Your task to perform on an android device: Empty the shopping cart on costco.com. Search for "usb-b" on costco.com, select the first entry, and add it to the cart. Image 0: 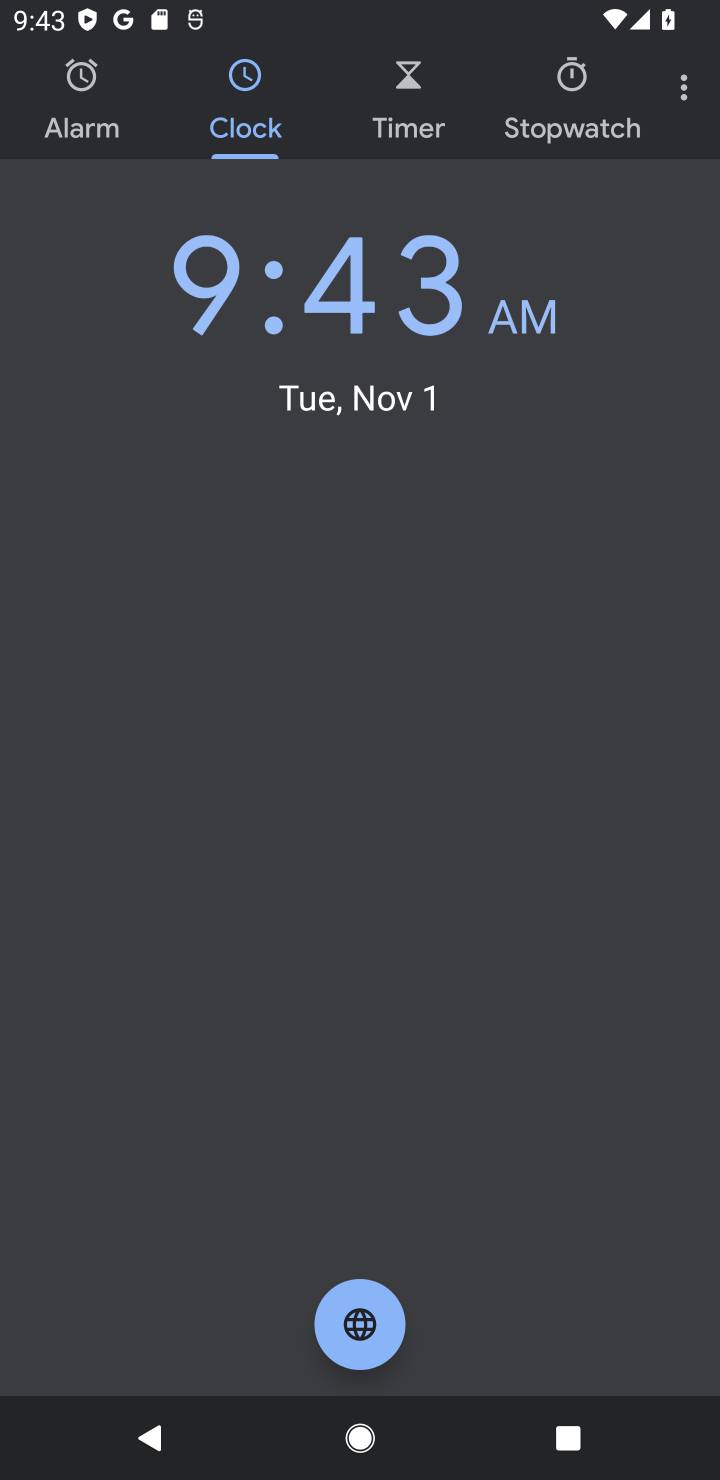
Step 0: press home button
Your task to perform on an android device: Empty the shopping cart on costco.com. Search for "usb-b" on costco.com, select the first entry, and add it to the cart. Image 1: 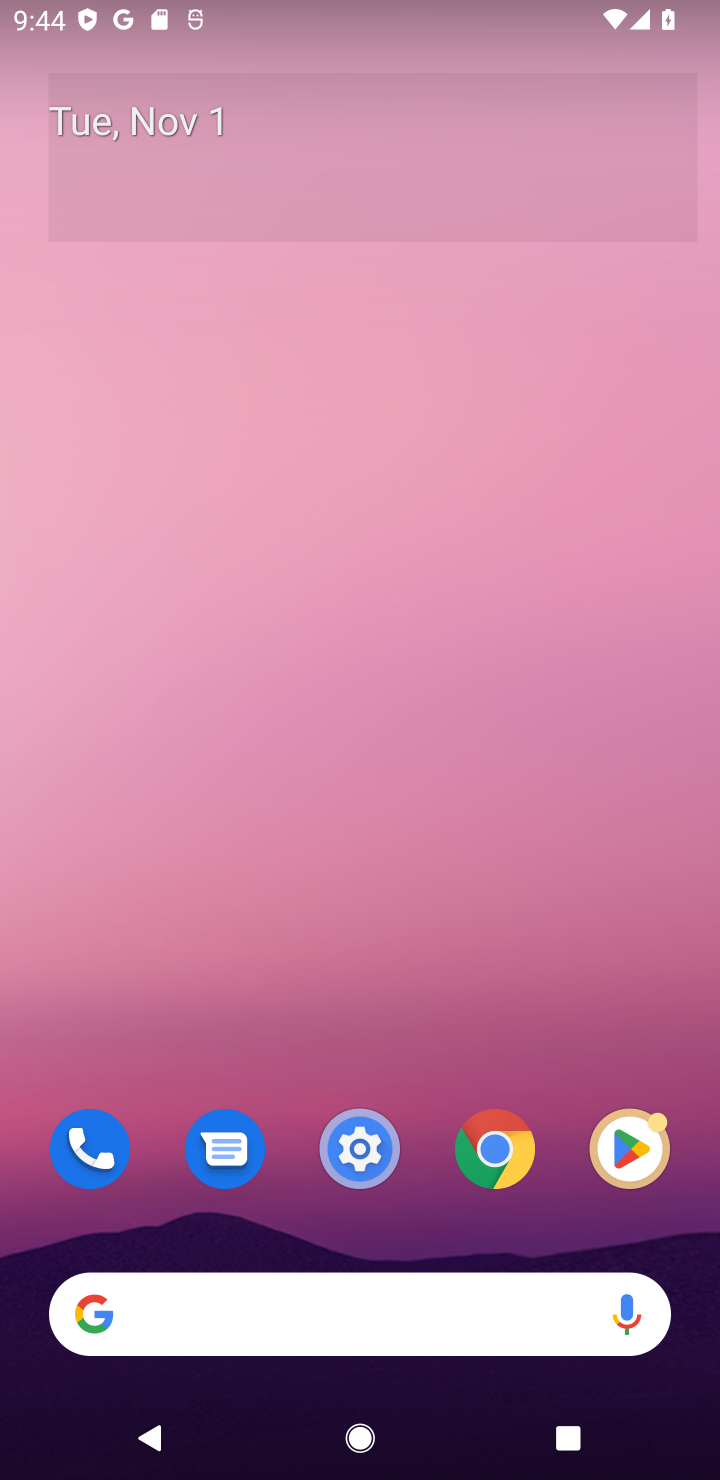
Step 1: click (162, 1310)
Your task to perform on an android device: Empty the shopping cart on costco.com. Search for "usb-b" on costco.com, select the first entry, and add it to the cart. Image 2: 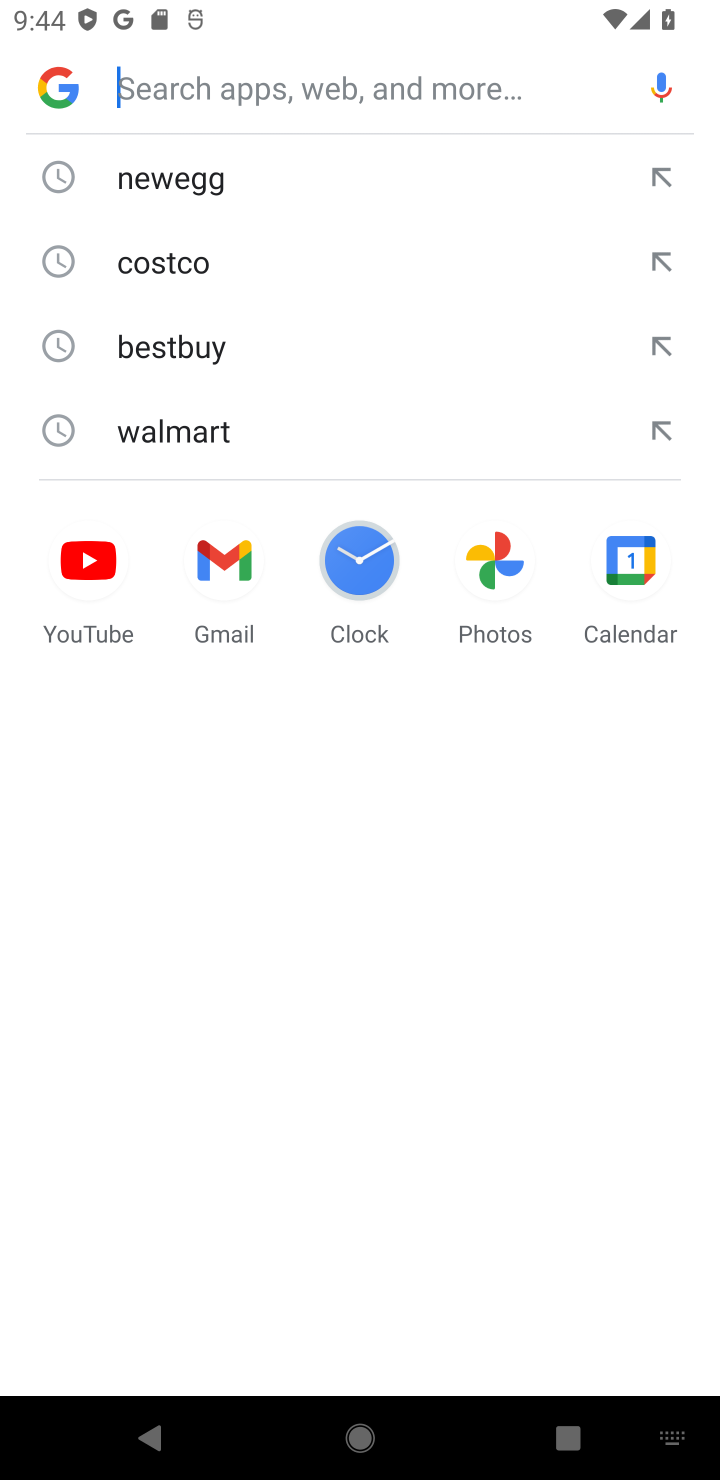
Step 2: press enter
Your task to perform on an android device: Empty the shopping cart on costco.com. Search for "usb-b" on costco.com, select the first entry, and add it to the cart. Image 3: 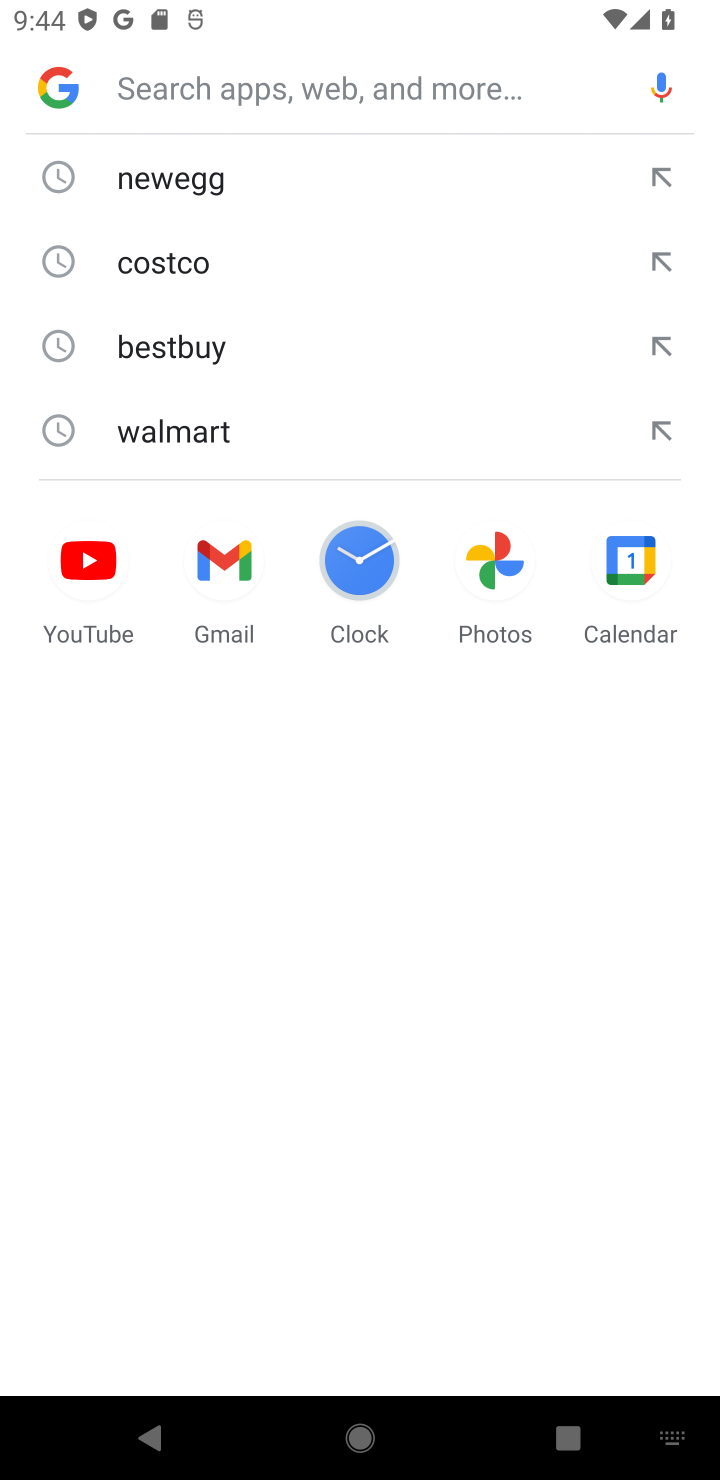
Step 3: type "costco.com"
Your task to perform on an android device: Empty the shopping cart on costco.com. Search for "usb-b" on costco.com, select the first entry, and add it to the cart. Image 4: 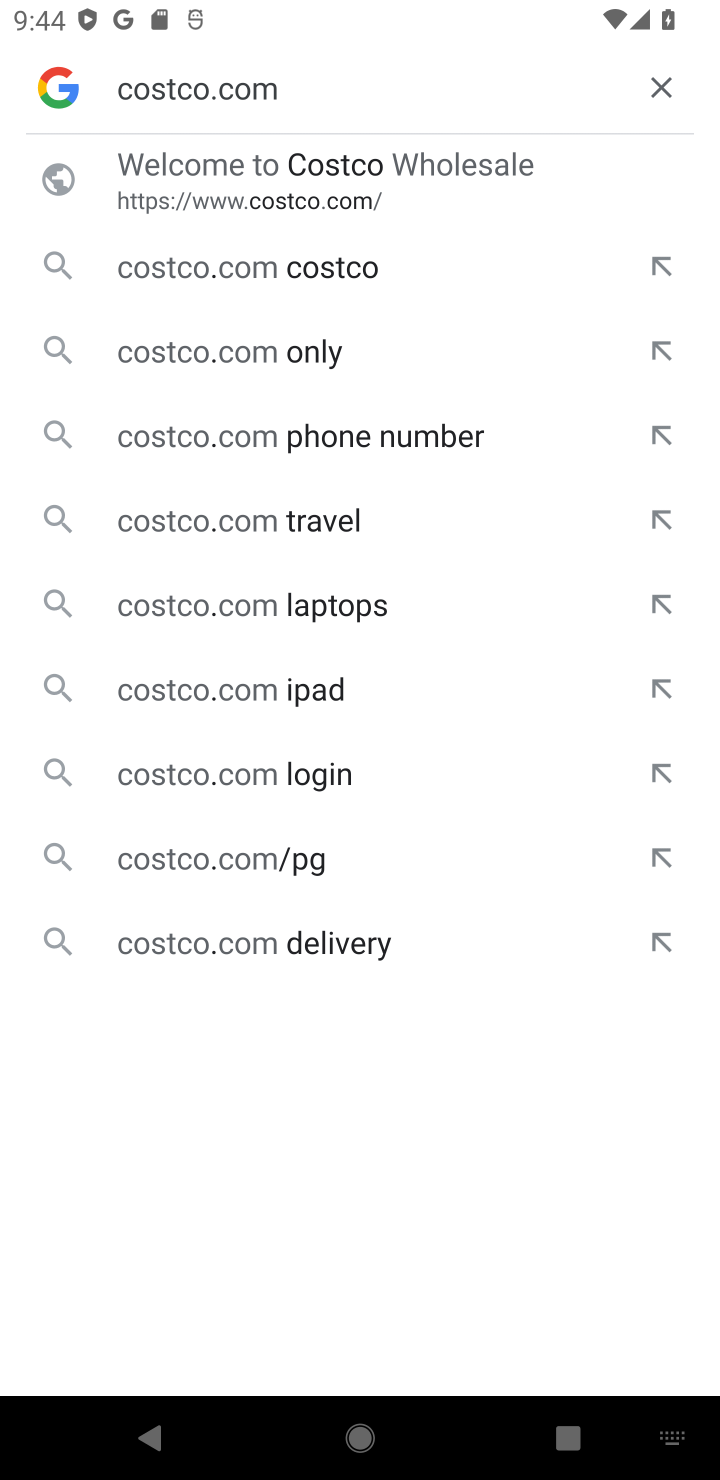
Step 4: press enter
Your task to perform on an android device: Empty the shopping cart on costco.com. Search for "usb-b" on costco.com, select the first entry, and add it to the cart. Image 5: 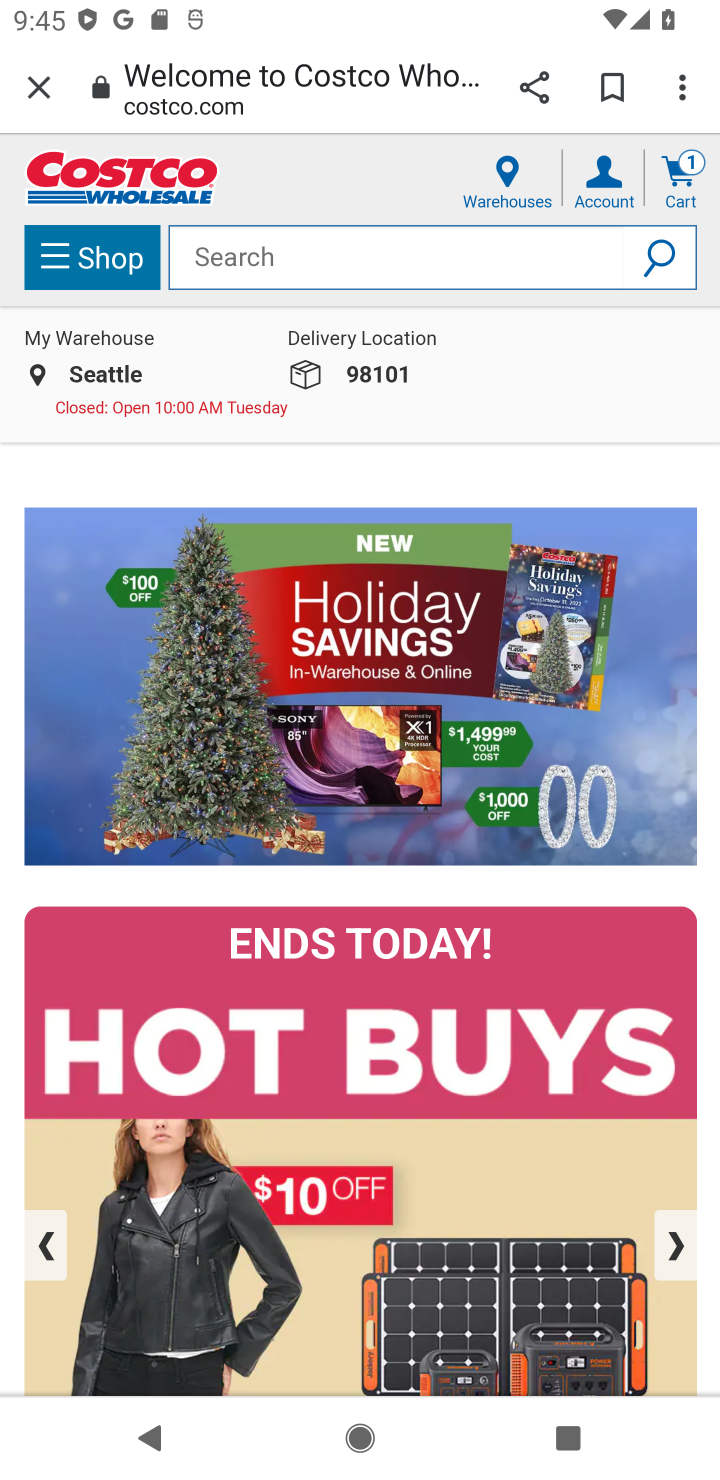
Step 5: click (692, 171)
Your task to perform on an android device: Empty the shopping cart on costco.com. Search for "usb-b" on costco.com, select the first entry, and add it to the cart. Image 6: 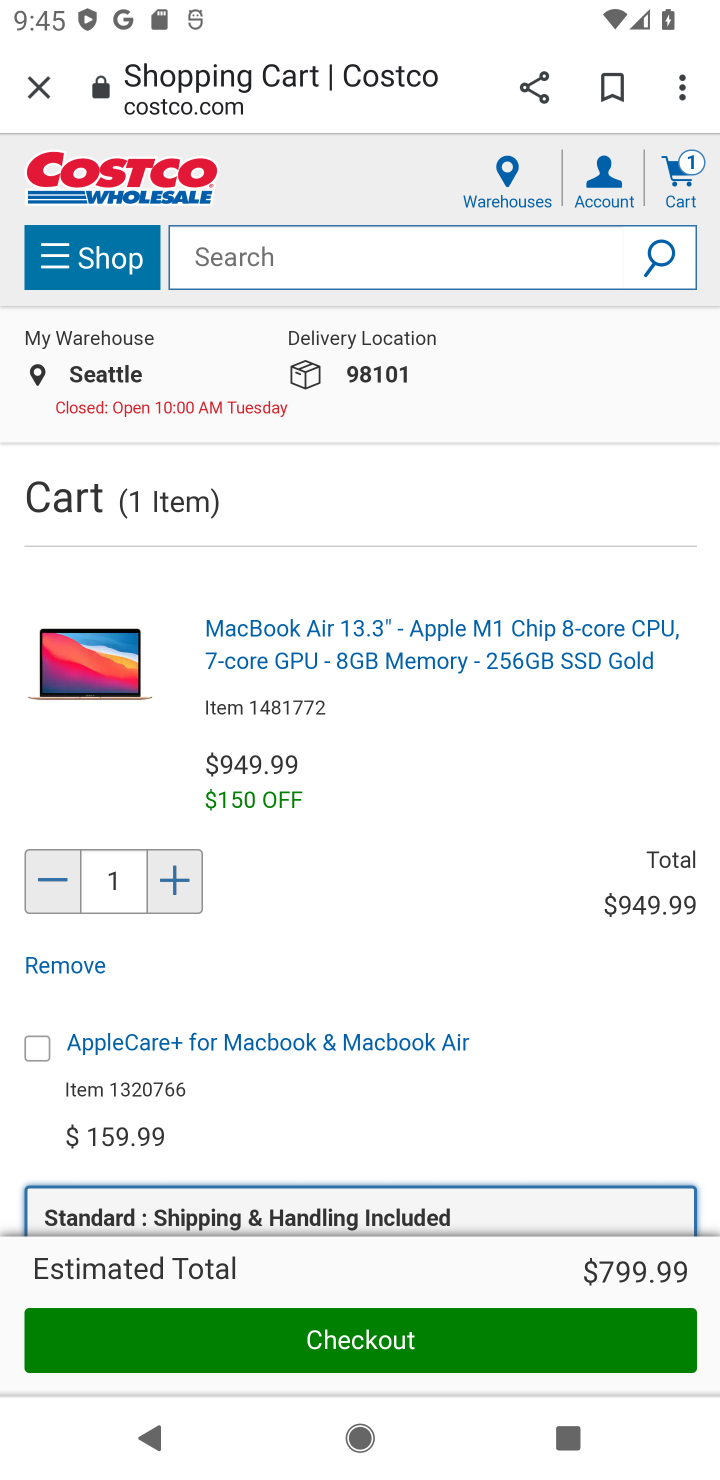
Step 6: click (41, 963)
Your task to perform on an android device: Empty the shopping cart on costco.com. Search for "usb-b" on costco.com, select the first entry, and add it to the cart. Image 7: 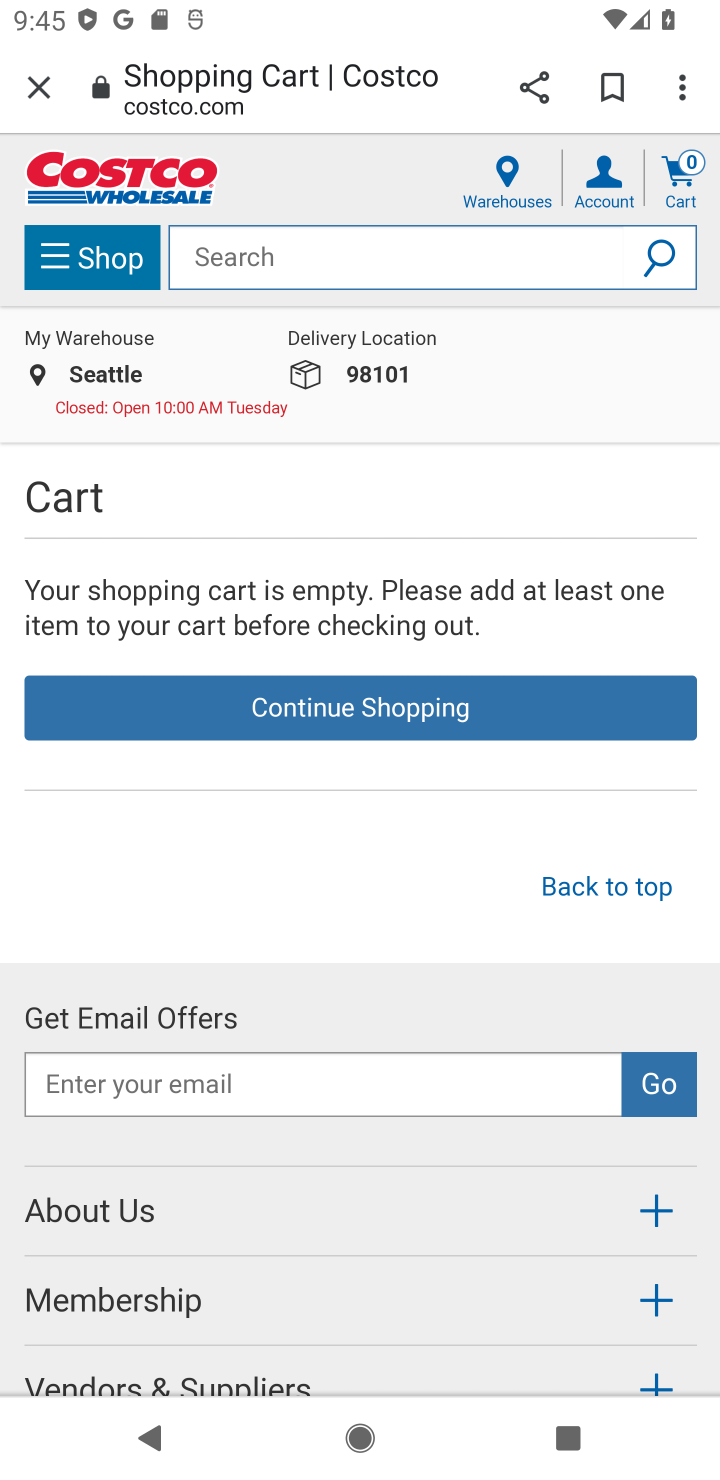
Step 7: click (242, 253)
Your task to perform on an android device: Empty the shopping cart on costco.com. Search for "usb-b" on costco.com, select the first entry, and add it to the cart. Image 8: 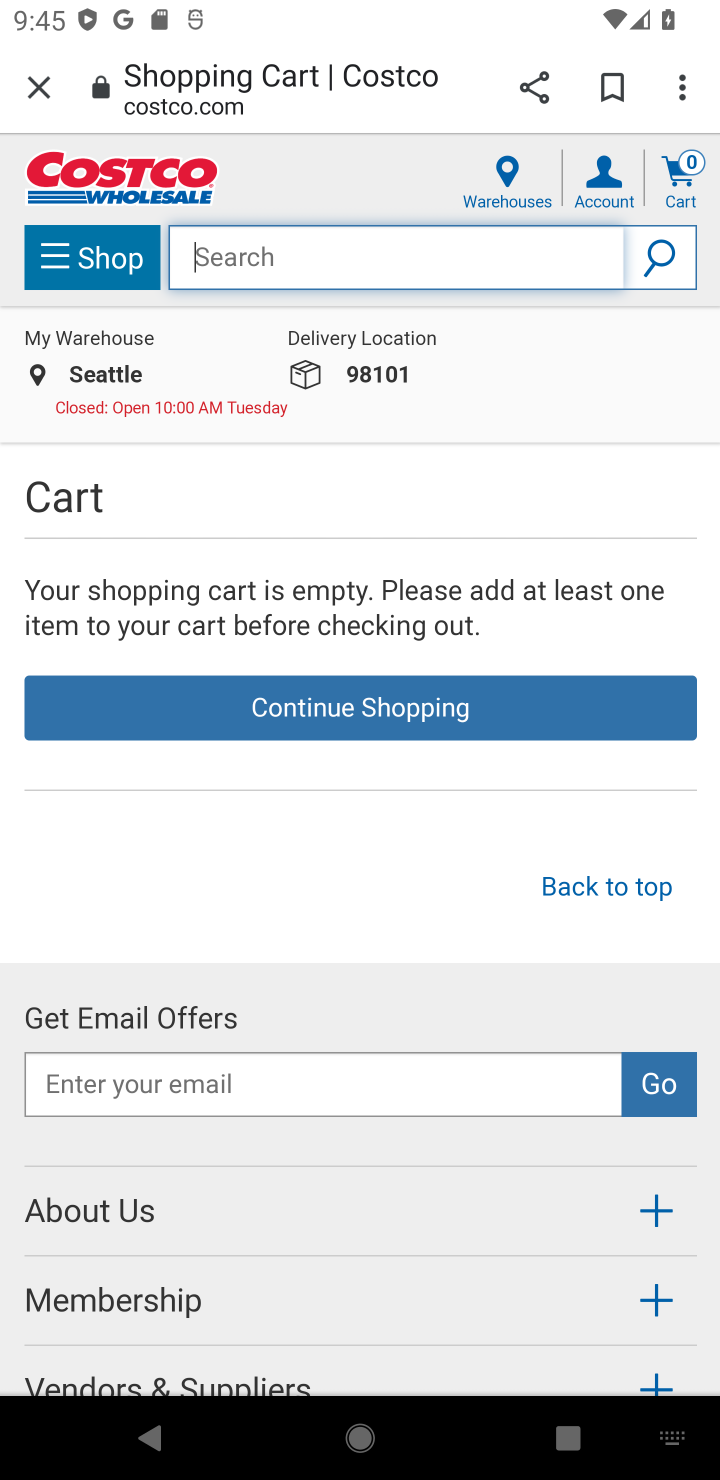
Step 8: type "usb-b"
Your task to perform on an android device: Empty the shopping cart on costco.com. Search for "usb-b" on costco.com, select the first entry, and add it to the cart. Image 9: 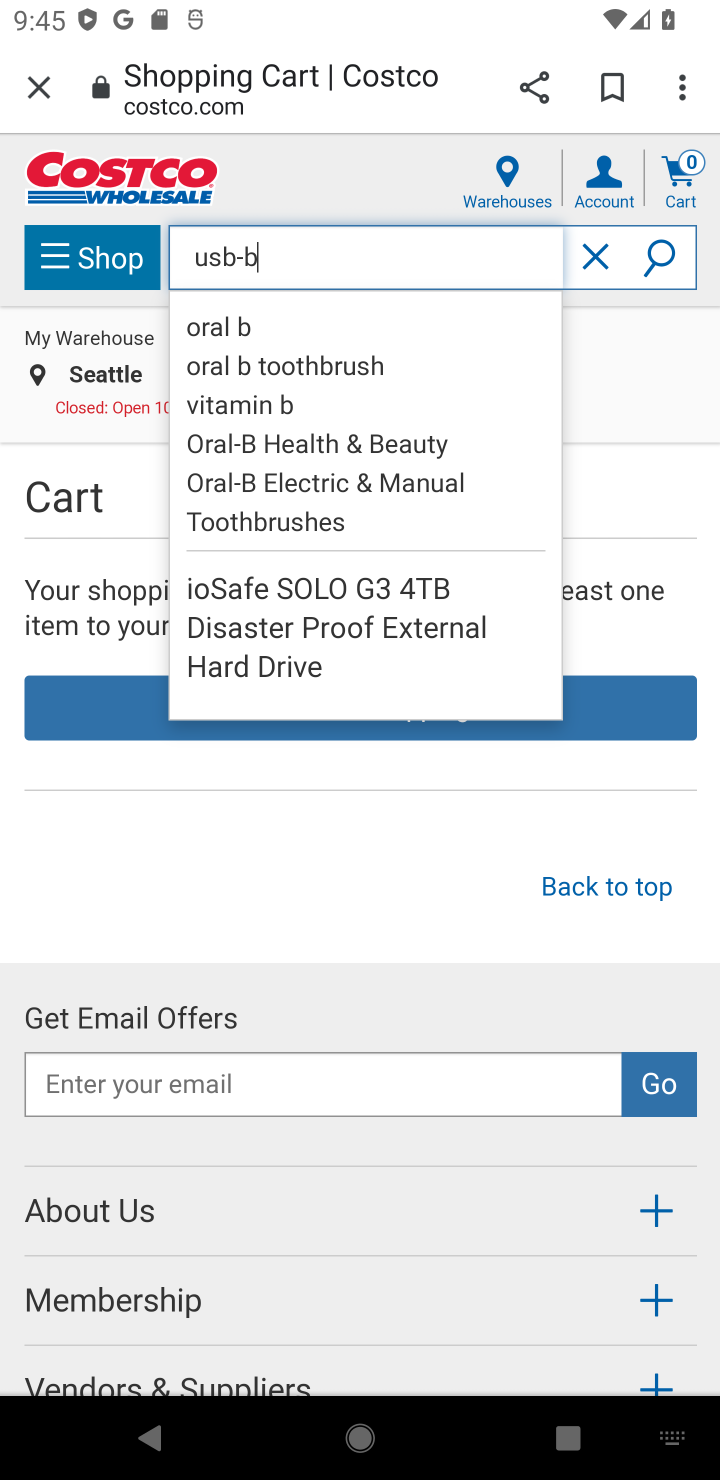
Step 9: click (666, 264)
Your task to perform on an android device: Empty the shopping cart on costco.com. Search for "usb-b" on costco.com, select the first entry, and add it to the cart. Image 10: 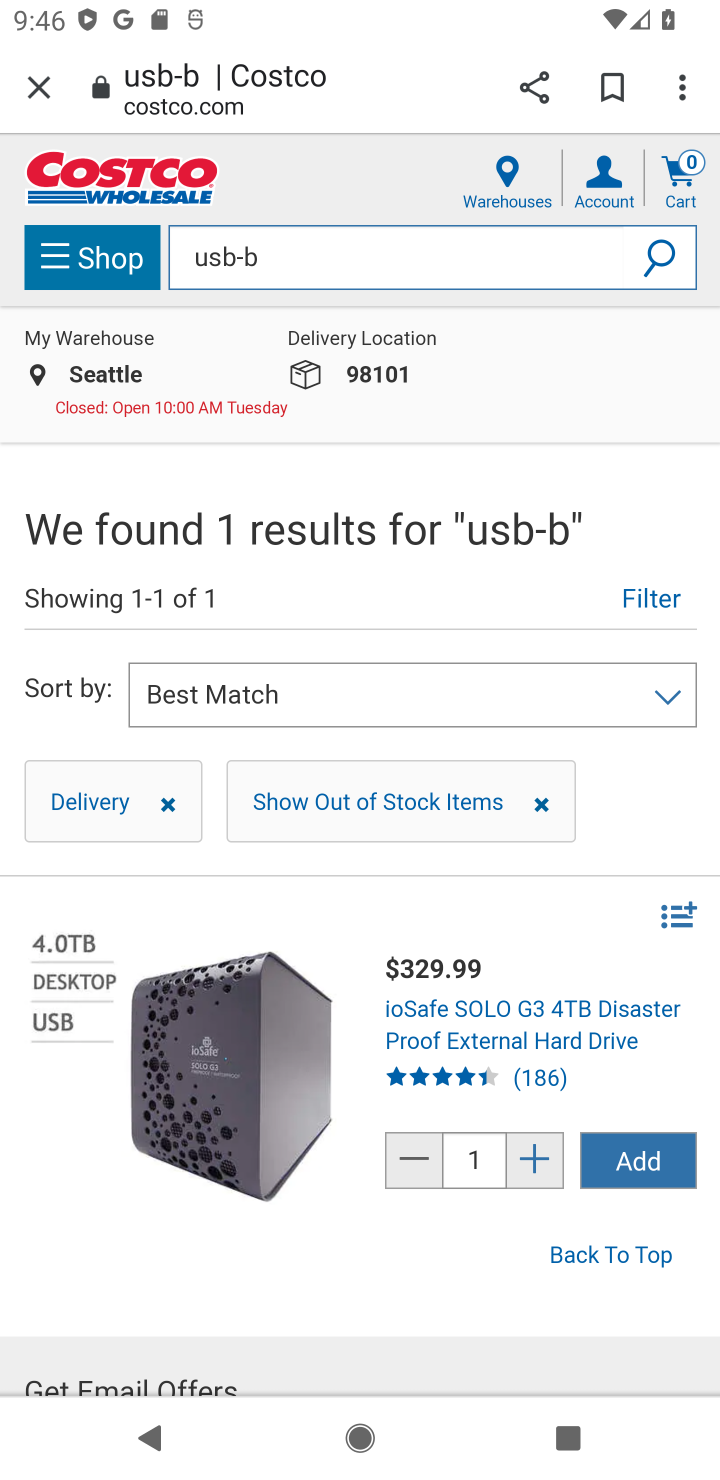
Step 10: task complete